Your task to perform on an android device: Go to CNN.com Image 0: 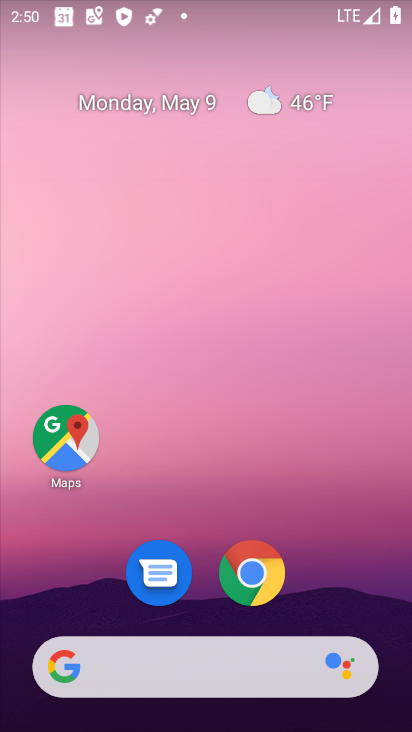
Step 0: drag from (216, 380) to (179, 69)
Your task to perform on an android device: Go to CNN.com Image 1: 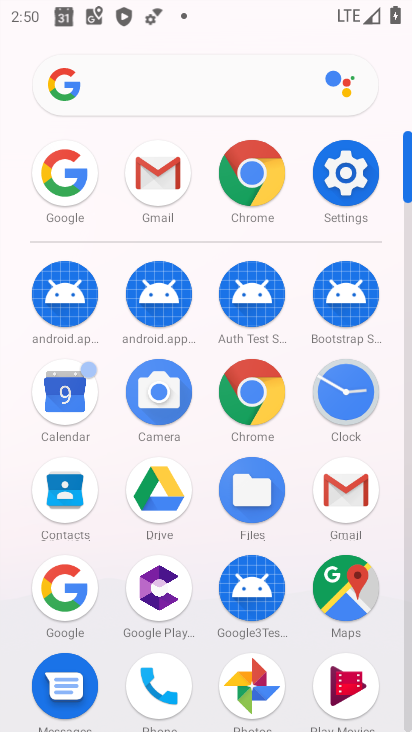
Step 1: click (68, 174)
Your task to perform on an android device: Go to CNN.com Image 2: 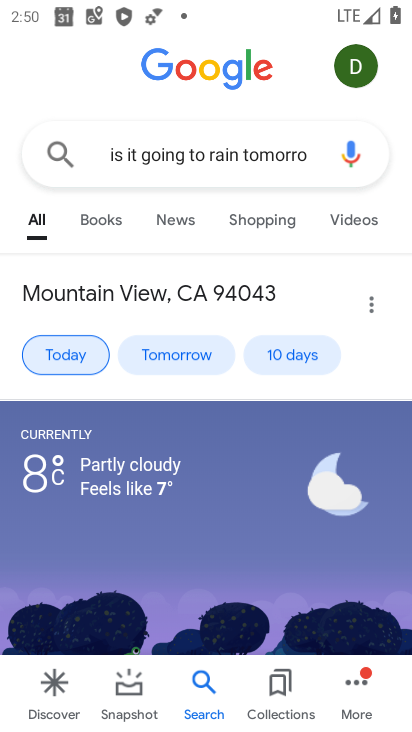
Step 2: click (303, 153)
Your task to perform on an android device: Go to CNN.com Image 3: 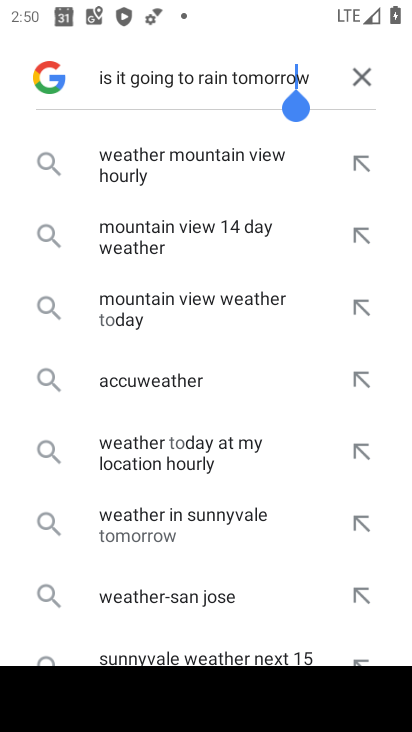
Step 3: click (358, 83)
Your task to perform on an android device: Go to CNN.com Image 4: 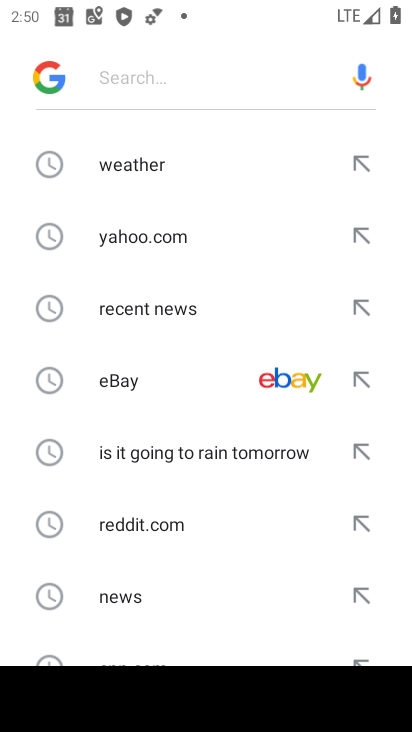
Step 4: drag from (199, 570) to (220, 228)
Your task to perform on an android device: Go to CNN.com Image 5: 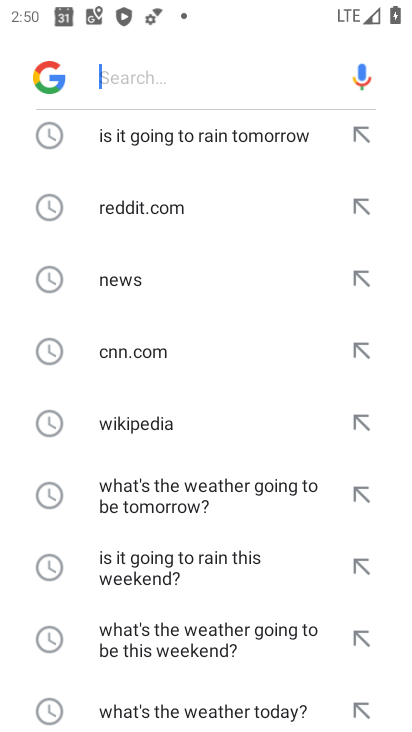
Step 5: click (162, 343)
Your task to perform on an android device: Go to CNN.com Image 6: 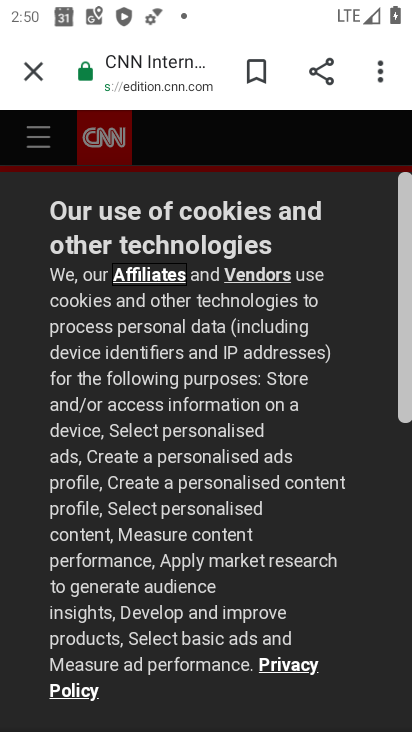
Step 6: task complete